Your task to perform on an android device: turn off wifi Image 0: 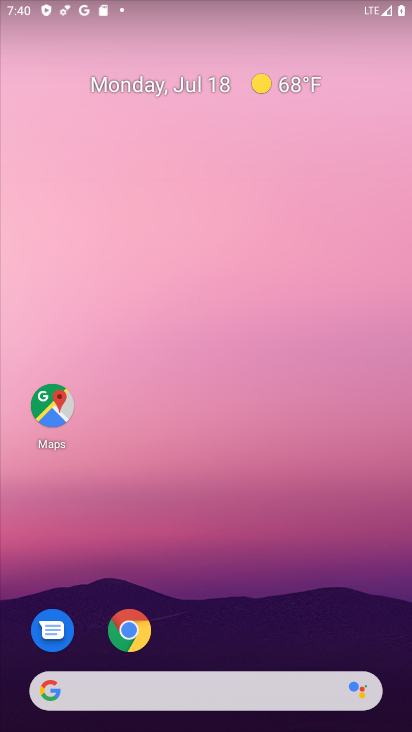
Step 0: drag from (186, 682) to (229, 171)
Your task to perform on an android device: turn off wifi Image 1: 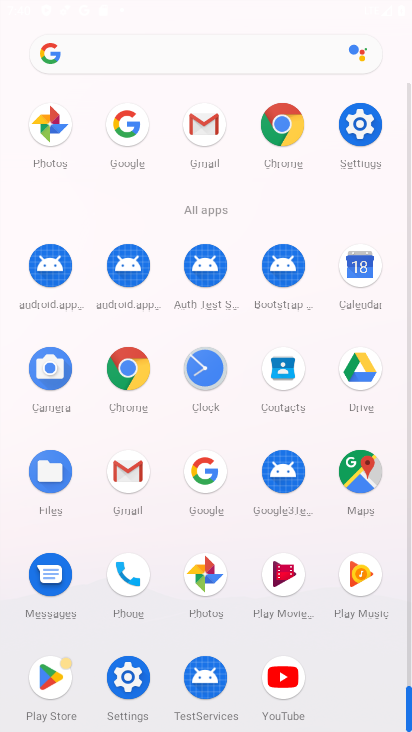
Step 1: click (352, 139)
Your task to perform on an android device: turn off wifi Image 2: 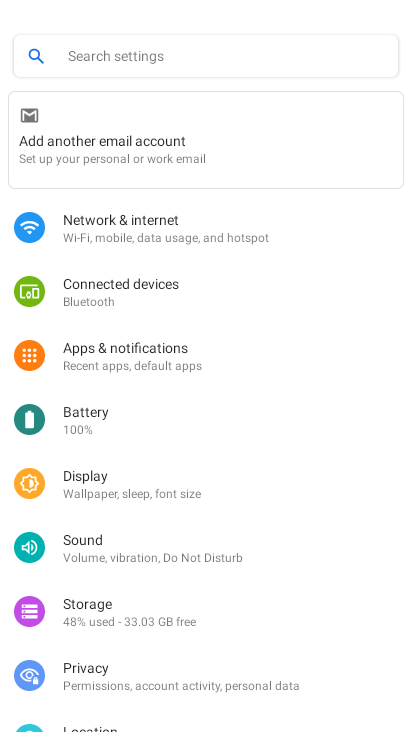
Step 2: click (142, 247)
Your task to perform on an android device: turn off wifi Image 3: 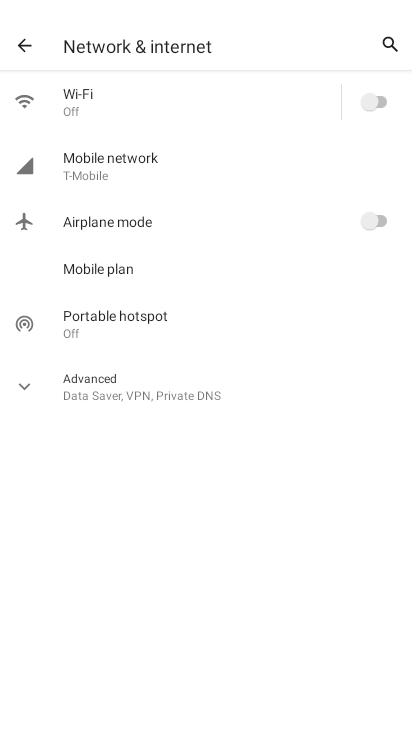
Step 3: task complete